Your task to perform on an android device: check out phone information Image 0: 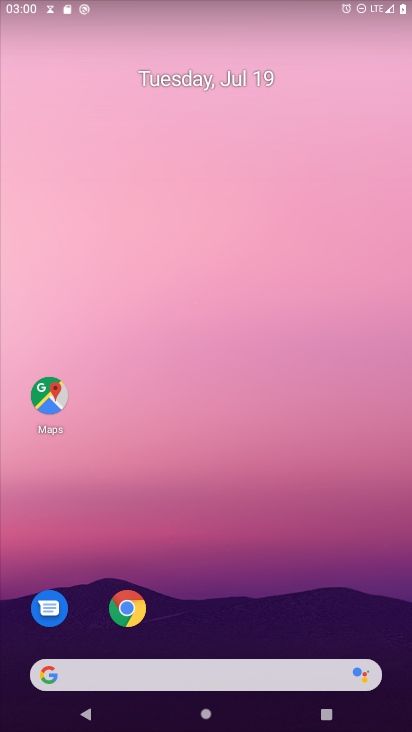
Step 0: drag from (280, 673) to (268, 9)
Your task to perform on an android device: check out phone information Image 1: 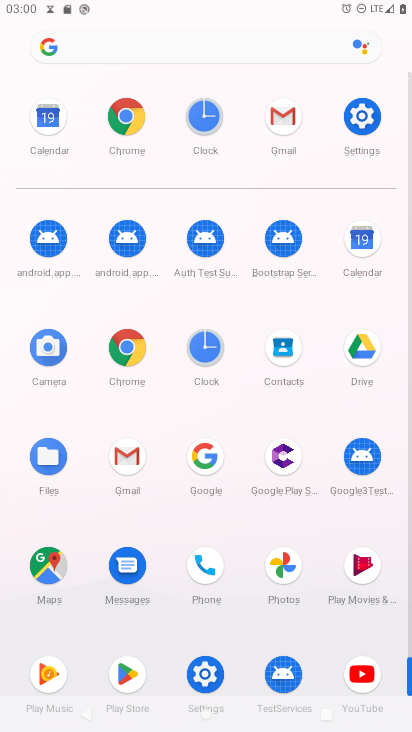
Step 1: click (375, 118)
Your task to perform on an android device: check out phone information Image 2: 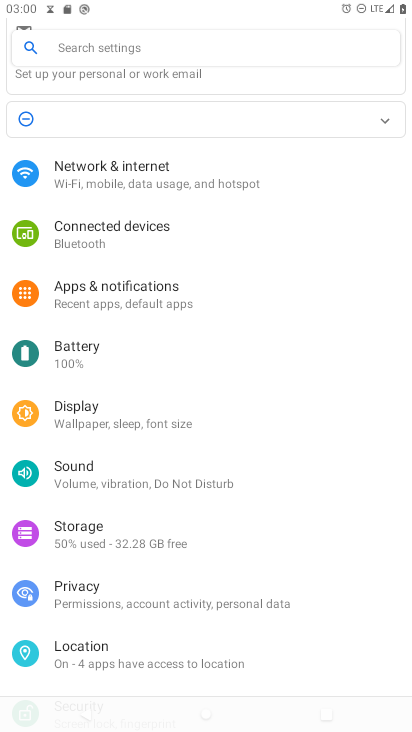
Step 2: drag from (142, 567) to (219, 115)
Your task to perform on an android device: check out phone information Image 3: 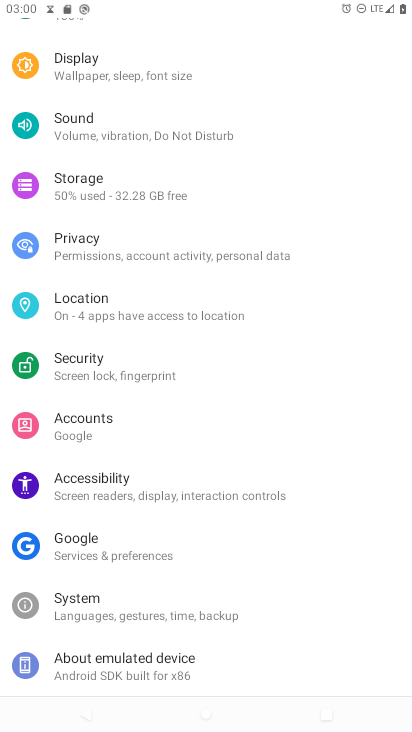
Step 3: click (219, 677)
Your task to perform on an android device: check out phone information Image 4: 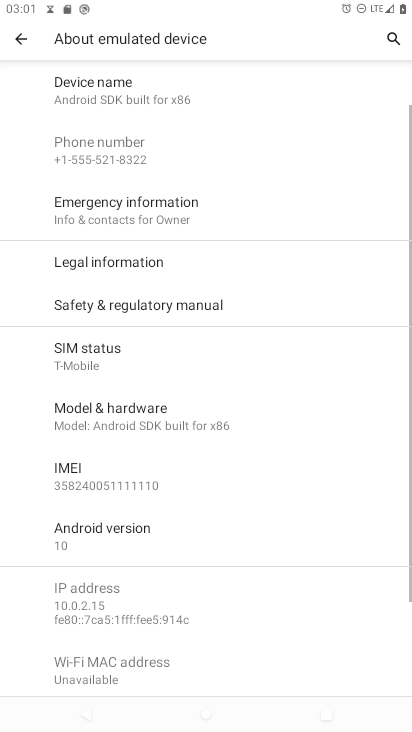
Step 4: task complete